Your task to perform on an android device: open app "Roku - Official Remote Control" (install if not already installed), go to login, and select forgot password Image 0: 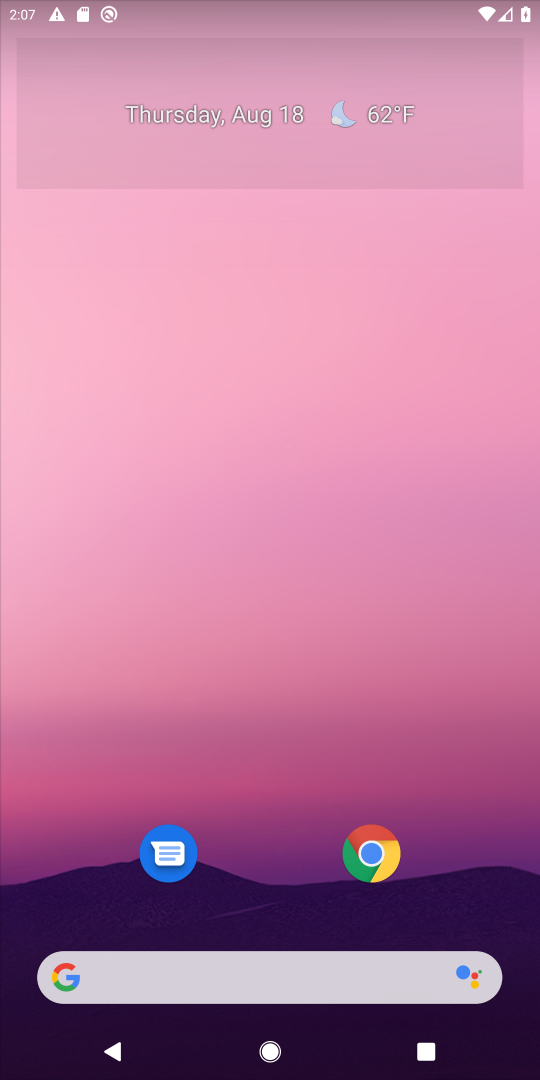
Step 0: drag from (424, 462) to (352, 19)
Your task to perform on an android device: open app "Roku - Official Remote Control" (install if not already installed), go to login, and select forgot password Image 1: 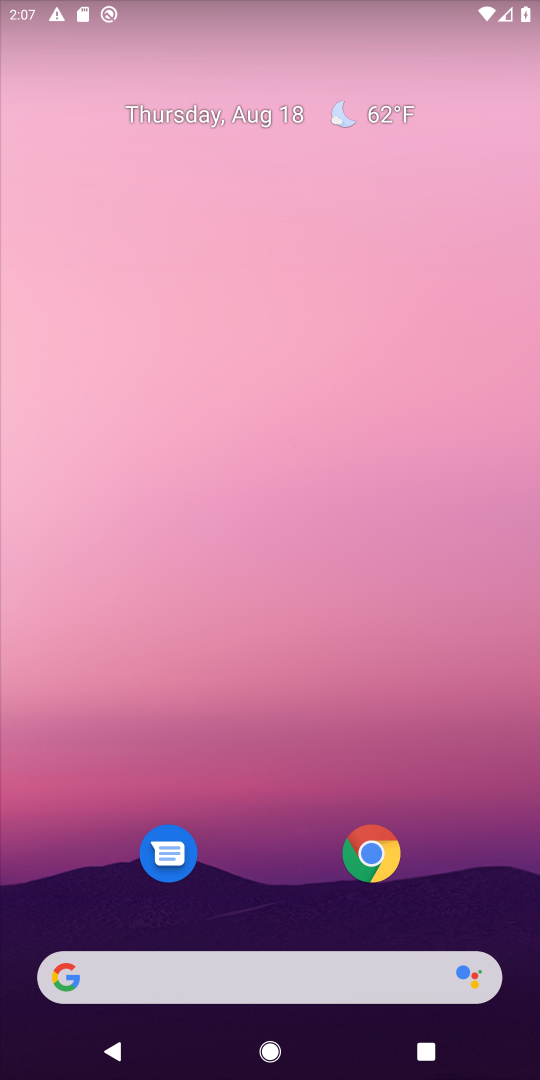
Step 1: drag from (426, 741) to (258, 51)
Your task to perform on an android device: open app "Roku - Official Remote Control" (install if not already installed), go to login, and select forgot password Image 2: 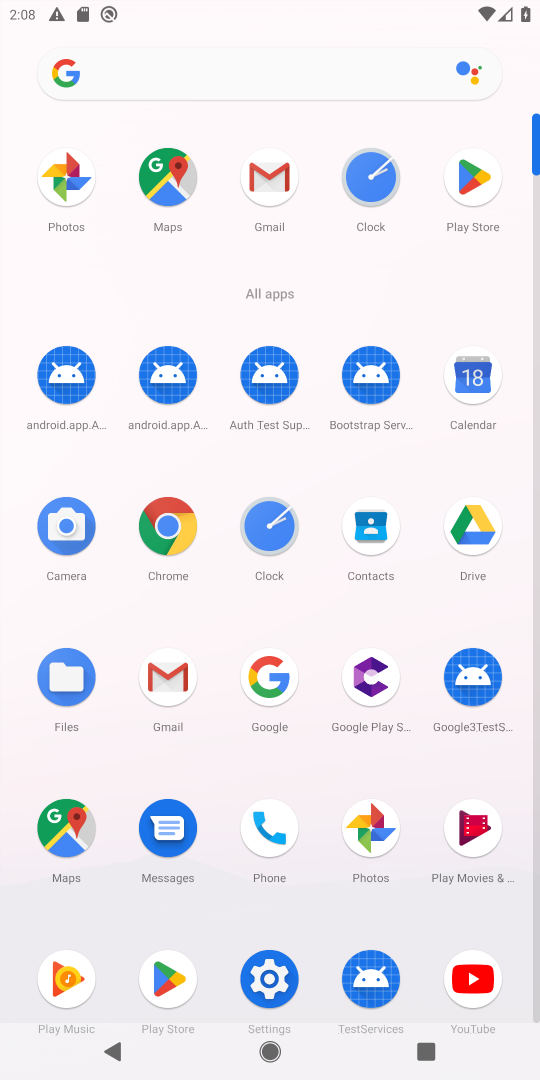
Step 2: click (472, 185)
Your task to perform on an android device: open app "Roku - Official Remote Control" (install if not already installed), go to login, and select forgot password Image 3: 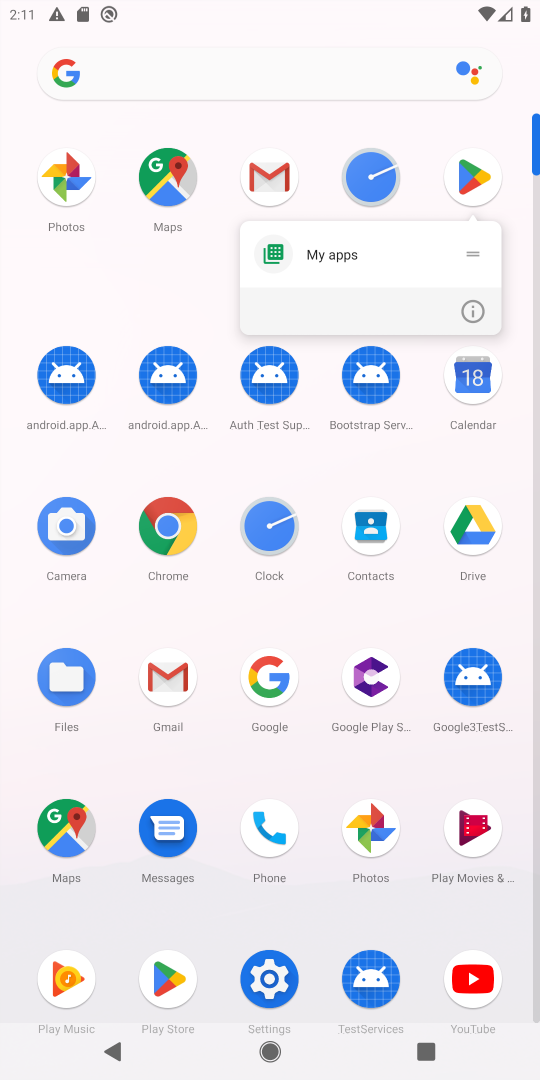
Step 3: click (475, 161)
Your task to perform on an android device: open app "Roku - Official Remote Control" (install if not already installed), go to login, and select forgot password Image 4: 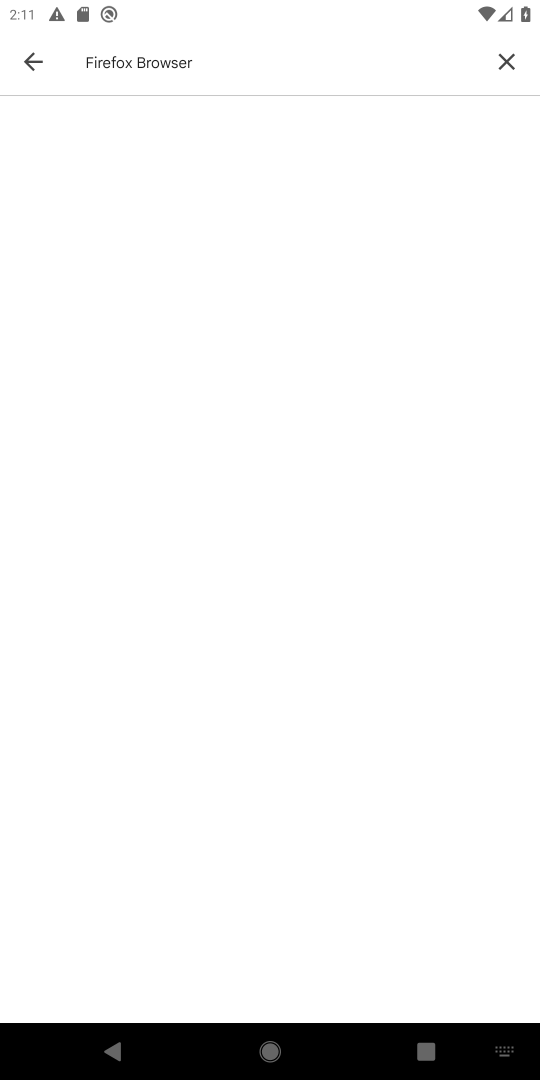
Step 4: click (491, 57)
Your task to perform on an android device: open app "Roku - Official Remote Control" (install if not already installed), go to login, and select forgot password Image 5: 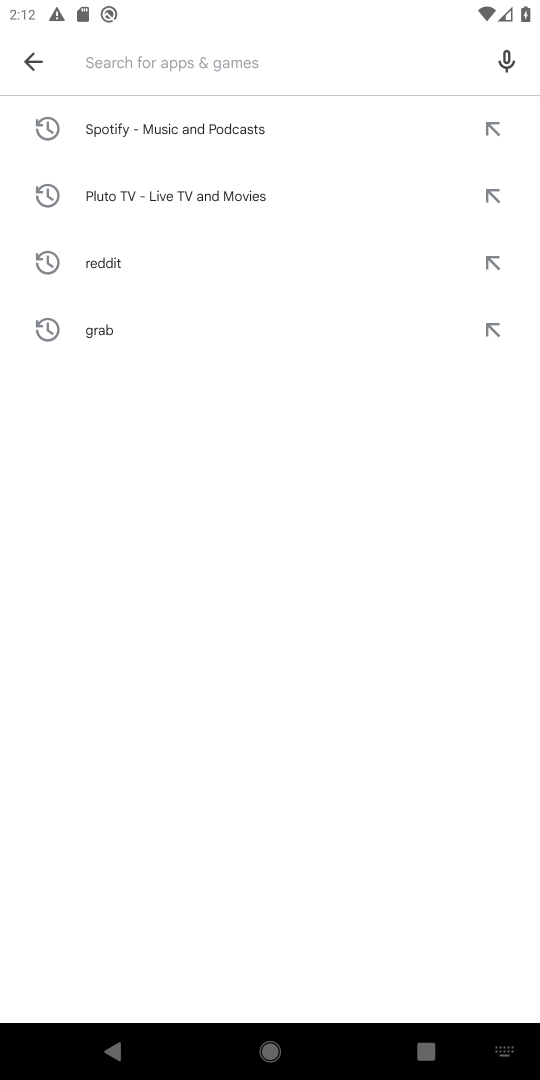
Step 5: type "Roku - Official Remote Control"
Your task to perform on an android device: open app "Roku - Official Remote Control" (install if not already installed), go to login, and select forgot password Image 6: 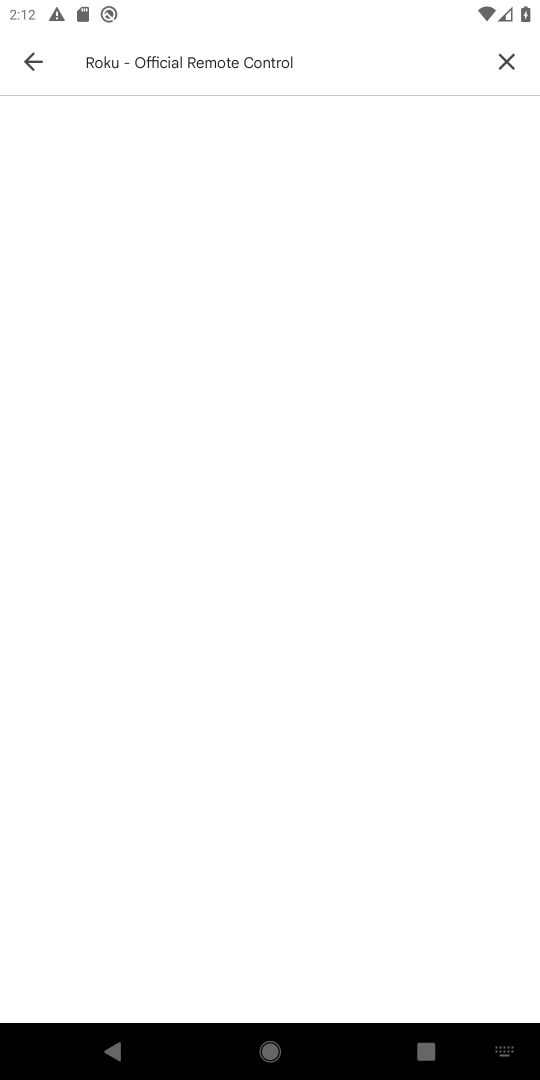
Step 6: task complete